Your task to perform on an android device: What's the weather today? Image 0: 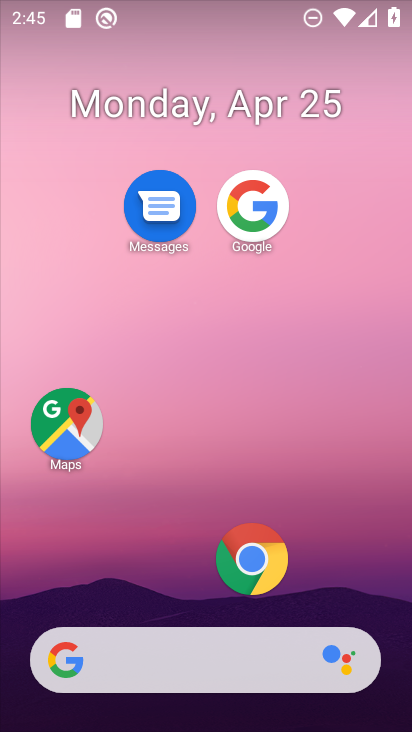
Step 0: click (251, 200)
Your task to perform on an android device: What's the weather today? Image 1: 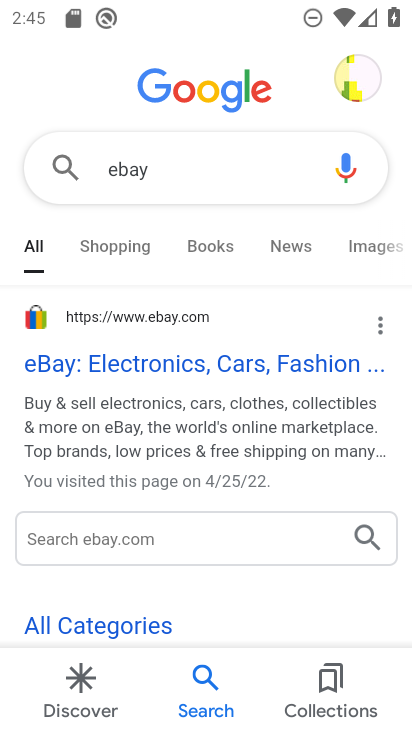
Step 1: click (184, 173)
Your task to perform on an android device: What's the weather today? Image 2: 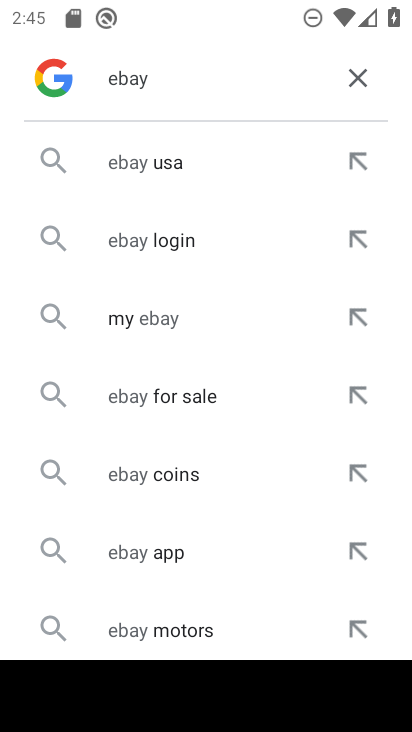
Step 2: click (367, 81)
Your task to perform on an android device: What's the weather today? Image 3: 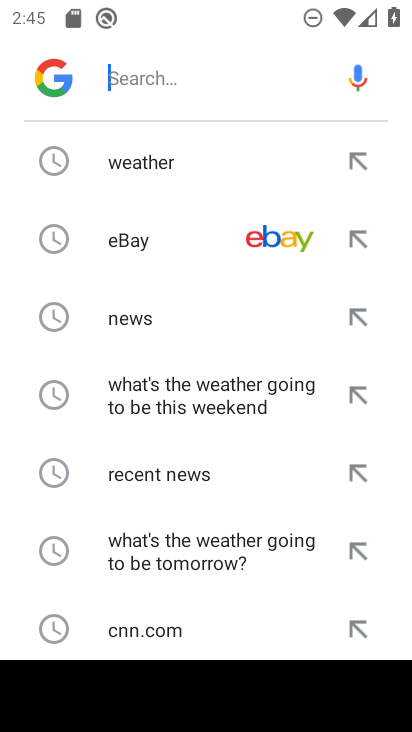
Step 3: click (158, 164)
Your task to perform on an android device: What's the weather today? Image 4: 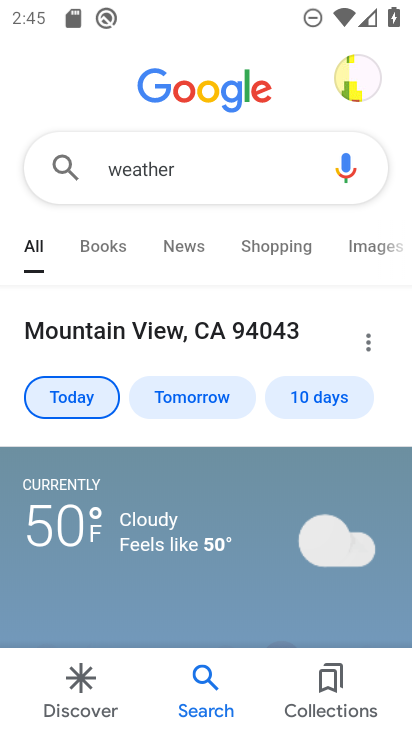
Step 4: task complete